Your task to perform on an android device: Open the Play Movies app and select the watchlist tab. Image 0: 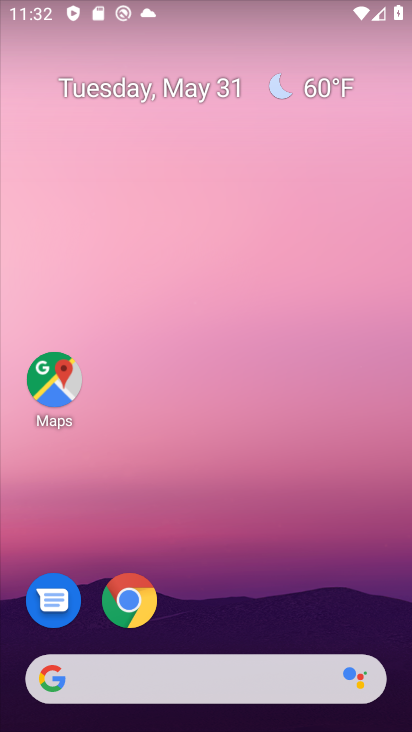
Step 0: drag from (334, 612) to (350, 95)
Your task to perform on an android device: Open the Play Movies app and select the watchlist tab. Image 1: 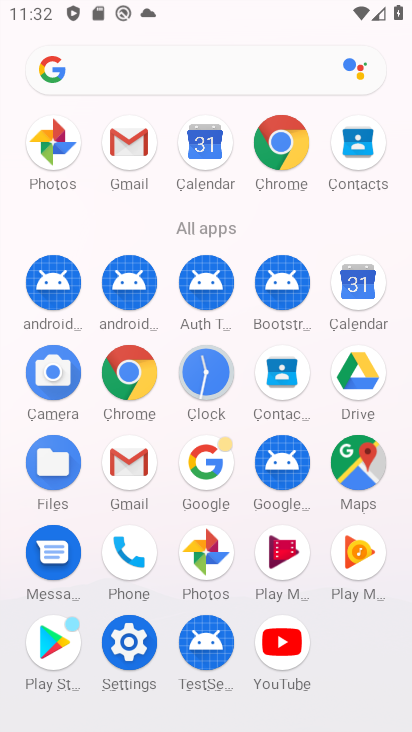
Step 1: click (271, 552)
Your task to perform on an android device: Open the Play Movies app and select the watchlist tab. Image 2: 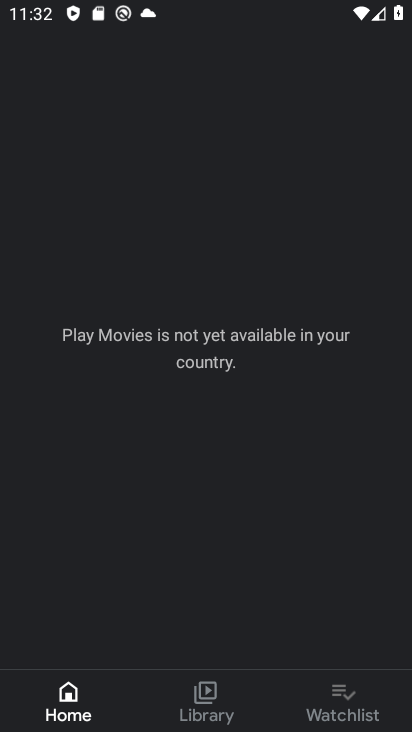
Step 2: click (348, 705)
Your task to perform on an android device: Open the Play Movies app and select the watchlist tab. Image 3: 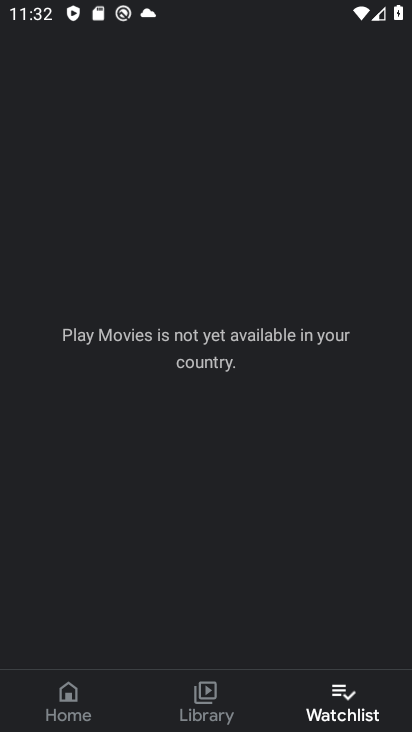
Step 3: task complete